Your task to perform on an android device: What's the weather going to be this weekend? Image 0: 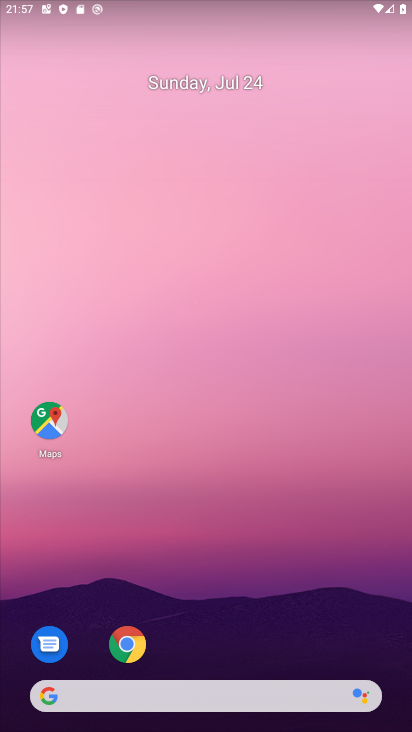
Step 0: drag from (3, 273) to (399, 256)
Your task to perform on an android device: What's the weather going to be this weekend? Image 1: 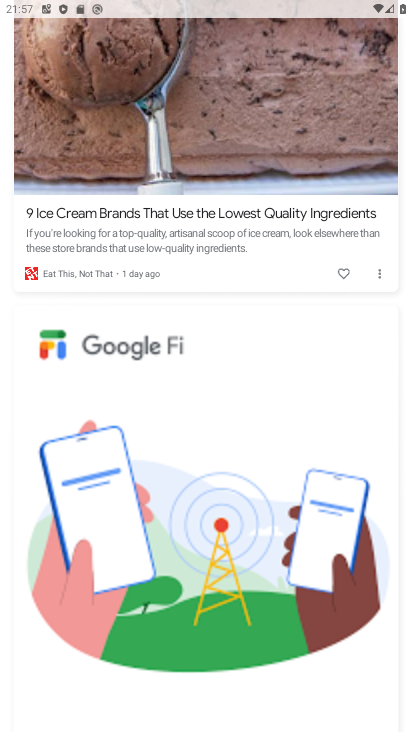
Step 1: drag from (409, 303) to (80, 311)
Your task to perform on an android device: What's the weather going to be this weekend? Image 2: 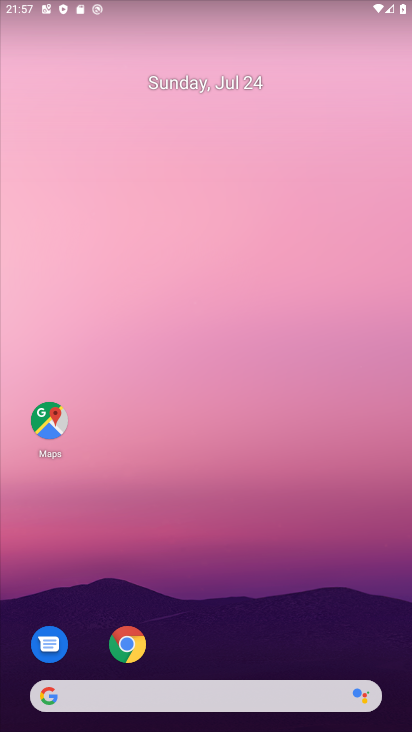
Step 2: click (140, 705)
Your task to perform on an android device: What's the weather going to be this weekend? Image 3: 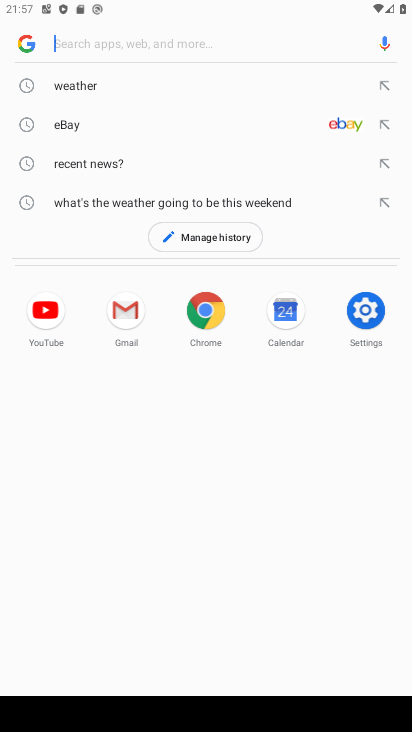
Step 3: click (66, 75)
Your task to perform on an android device: What's the weather going to be this weekend? Image 4: 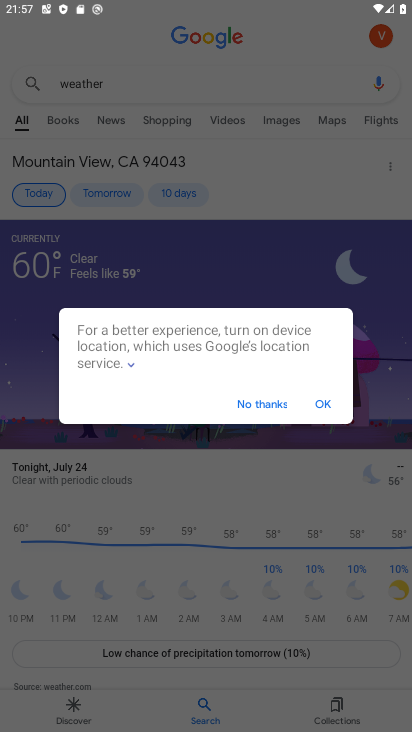
Step 4: click (320, 397)
Your task to perform on an android device: What's the weather going to be this weekend? Image 5: 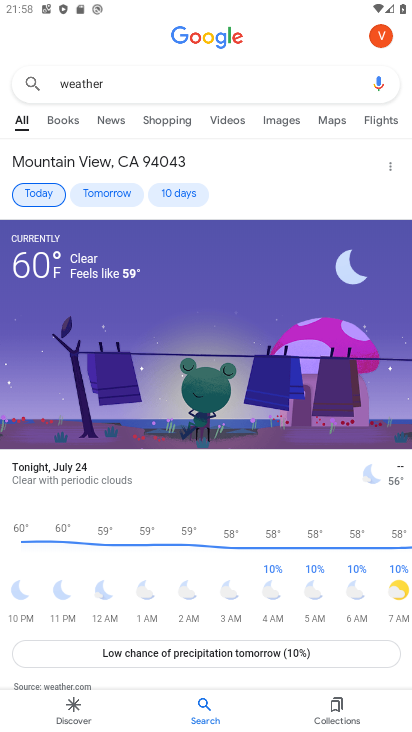
Step 5: click (176, 188)
Your task to perform on an android device: What's the weather going to be this weekend? Image 6: 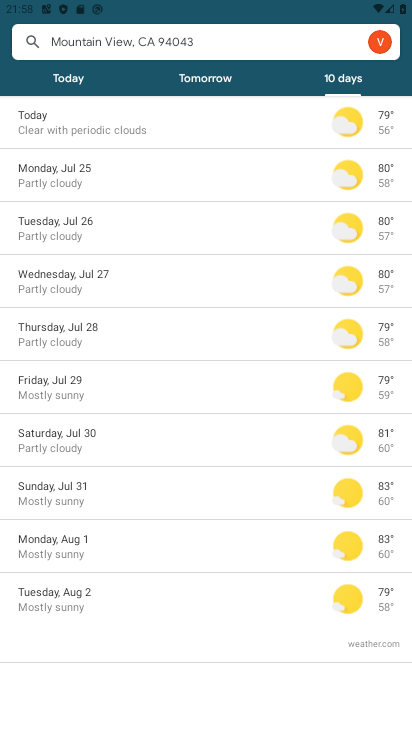
Step 6: task complete